Your task to perform on an android device: open device folders in google photos Image 0: 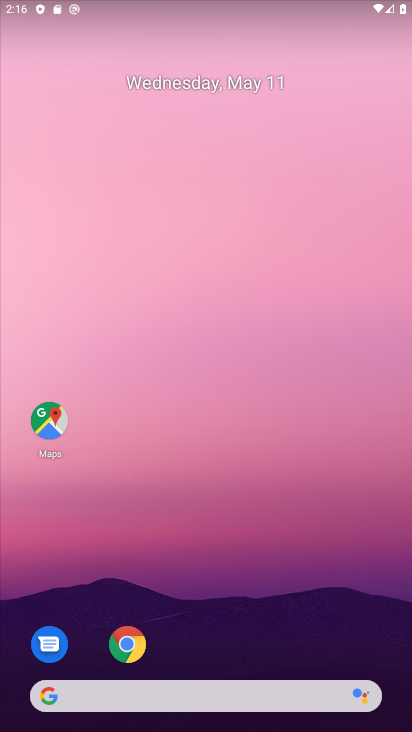
Step 0: drag from (209, 679) to (250, 165)
Your task to perform on an android device: open device folders in google photos Image 1: 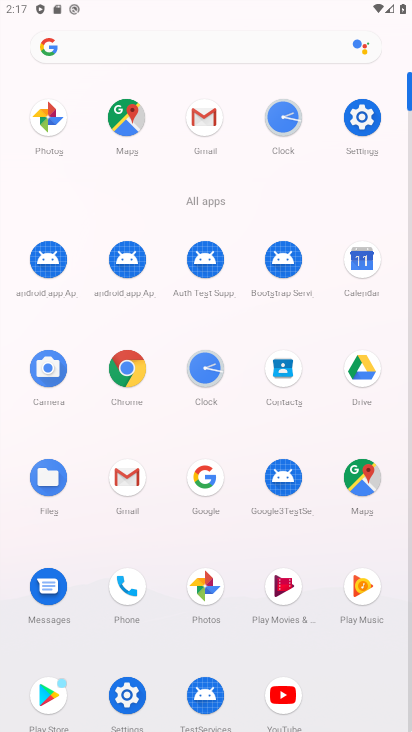
Step 1: click (204, 597)
Your task to perform on an android device: open device folders in google photos Image 2: 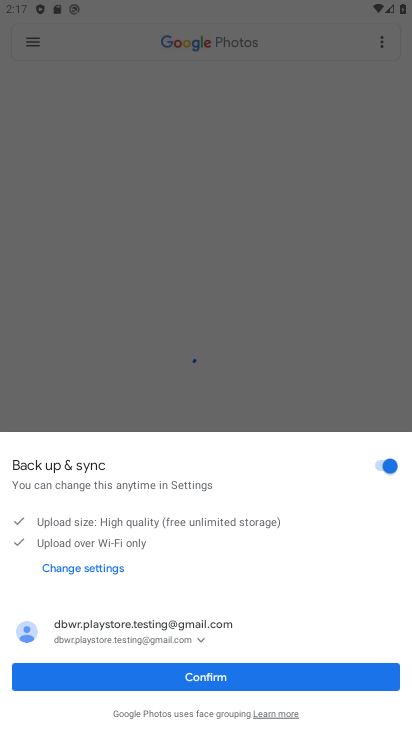
Step 2: click (191, 684)
Your task to perform on an android device: open device folders in google photos Image 3: 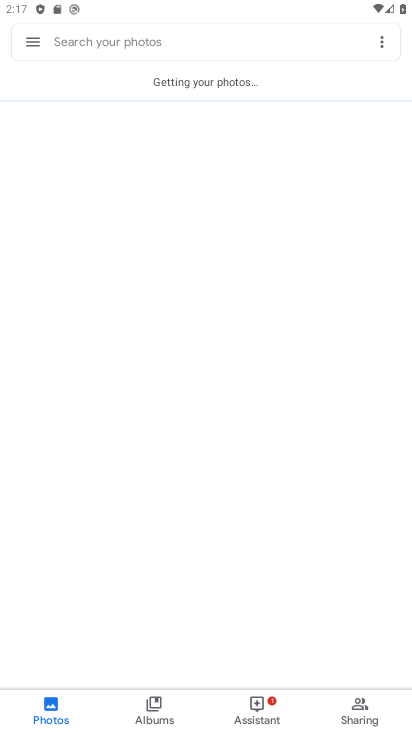
Step 3: click (32, 41)
Your task to perform on an android device: open device folders in google photos Image 4: 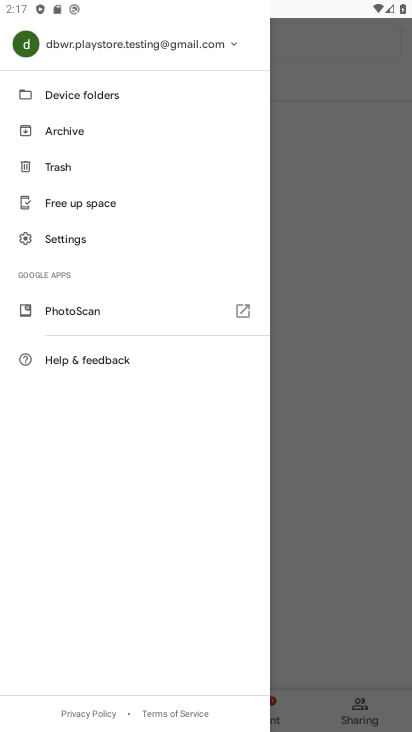
Step 4: click (82, 95)
Your task to perform on an android device: open device folders in google photos Image 5: 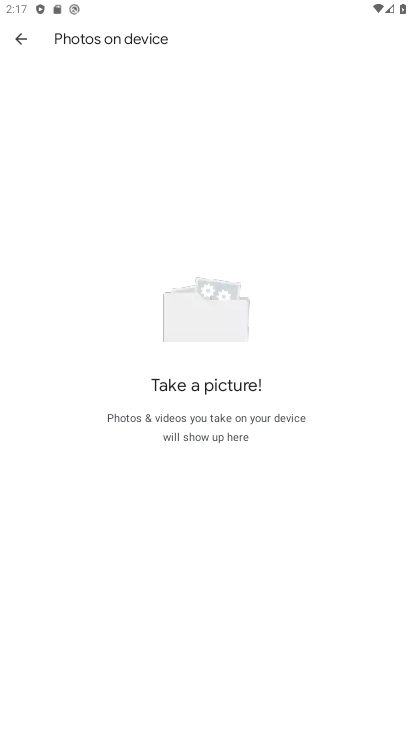
Step 5: task complete